Your task to perform on an android device: toggle wifi Image 0: 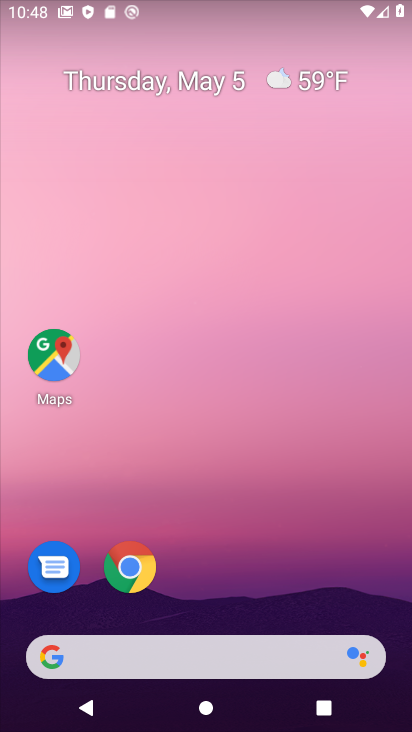
Step 0: drag from (116, 19) to (148, 513)
Your task to perform on an android device: toggle wifi Image 1: 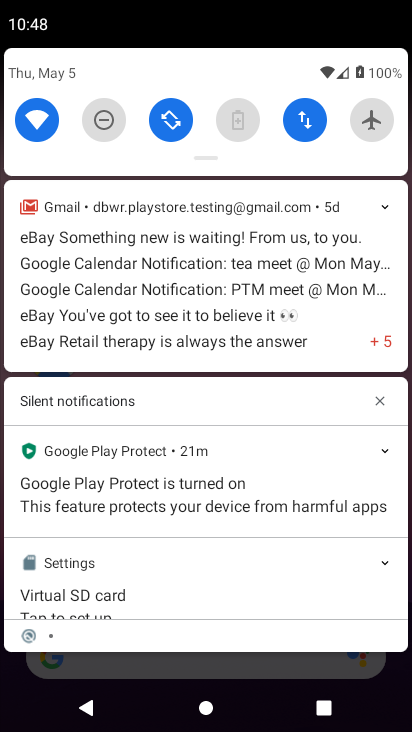
Step 1: click (41, 114)
Your task to perform on an android device: toggle wifi Image 2: 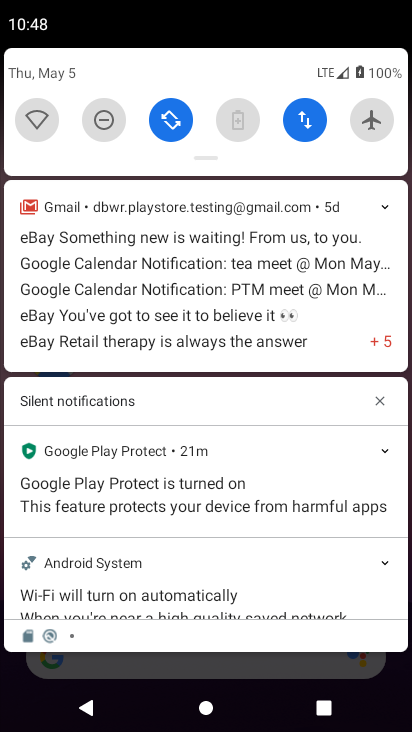
Step 2: task complete